Your task to perform on an android device: Open eBay Image 0: 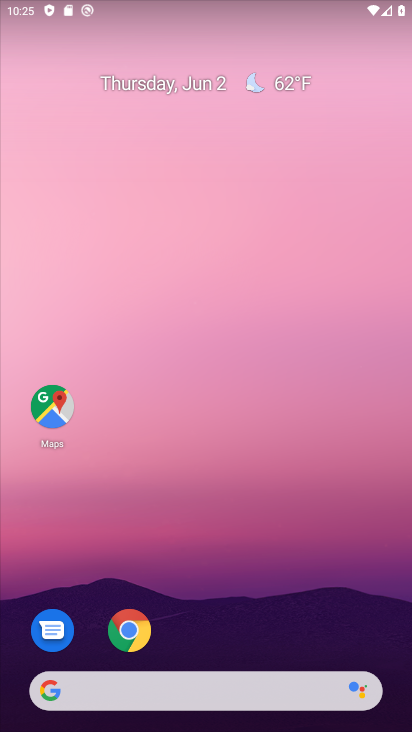
Step 0: press home button
Your task to perform on an android device: Open eBay Image 1: 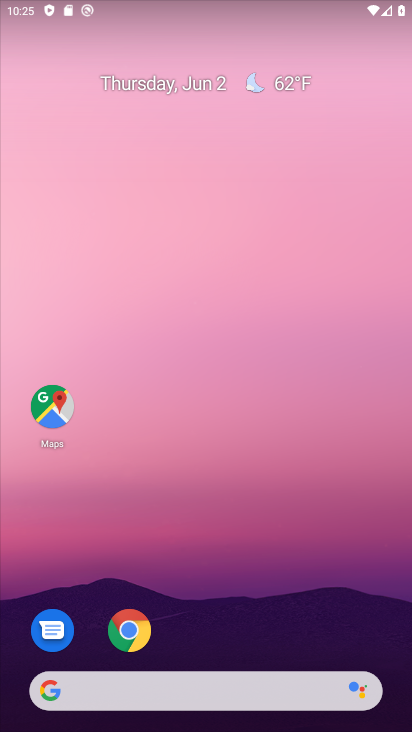
Step 1: click (132, 632)
Your task to perform on an android device: Open eBay Image 2: 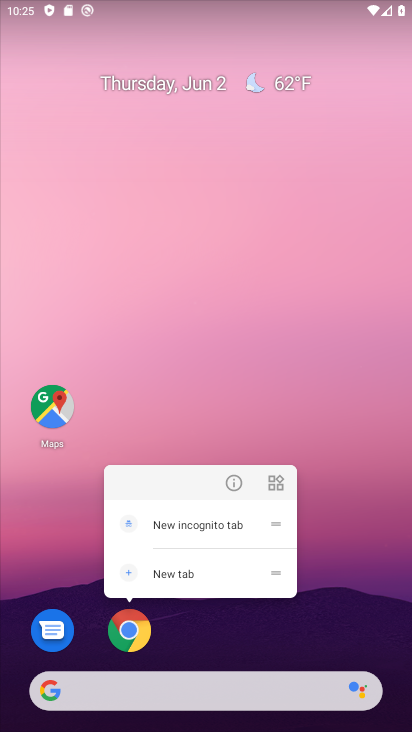
Step 2: click (134, 635)
Your task to perform on an android device: Open eBay Image 3: 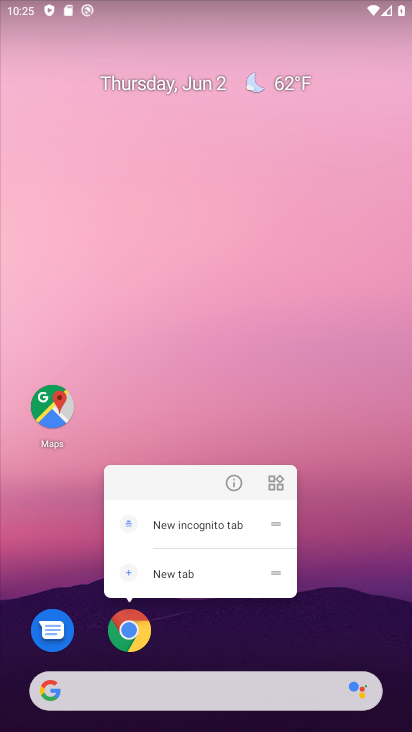
Step 3: click (134, 635)
Your task to perform on an android device: Open eBay Image 4: 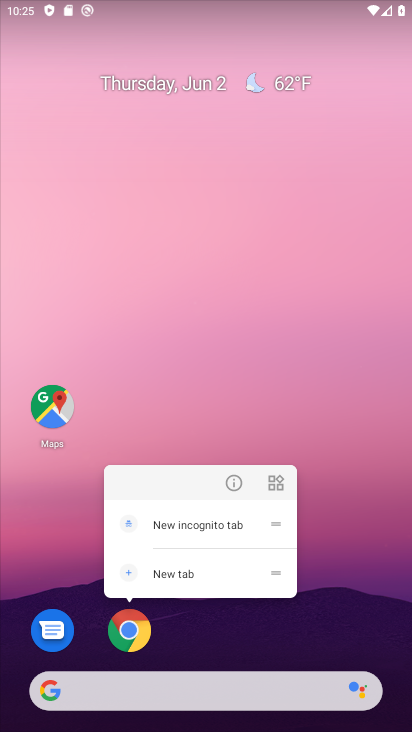
Step 4: click (132, 637)
Your task to perform on an android device: Open eBay Image 5: 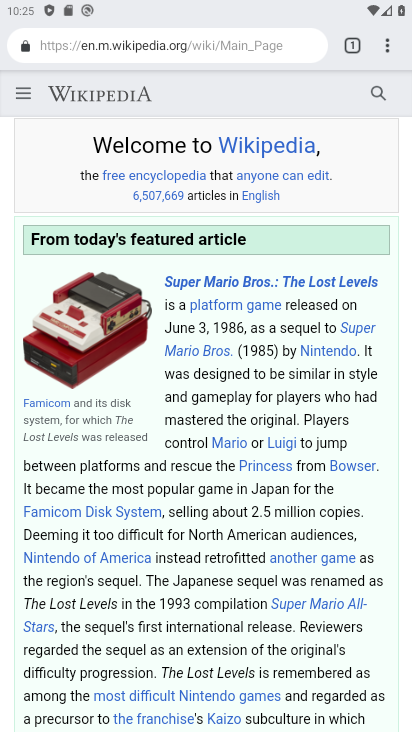
Step 5: drag from (387, 47) to (237, 86)
Your task to perform on an android device: Open eBay Image 6: 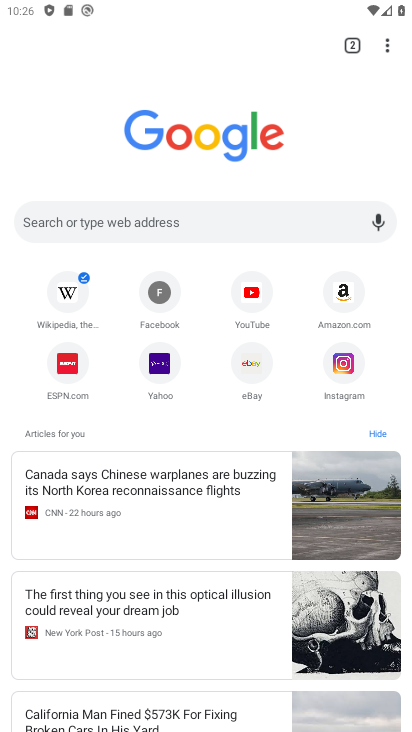
Step 6: click (255, 368)
Your task to perform on an android device: Open eBay Image 7: 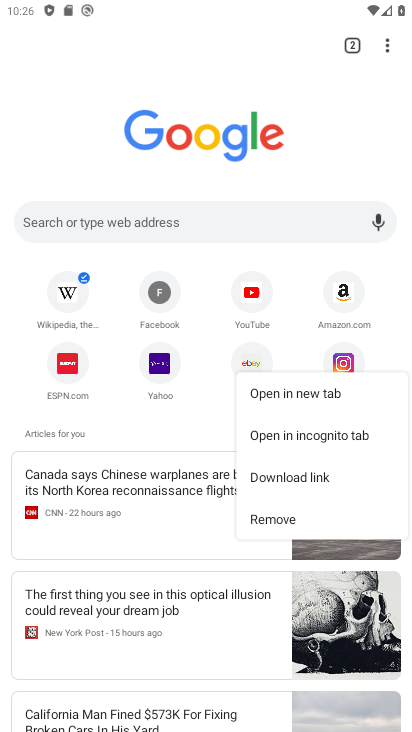
Step 7: click (248, 372)
Your task to perform on an android device: Open eBay Image 8: 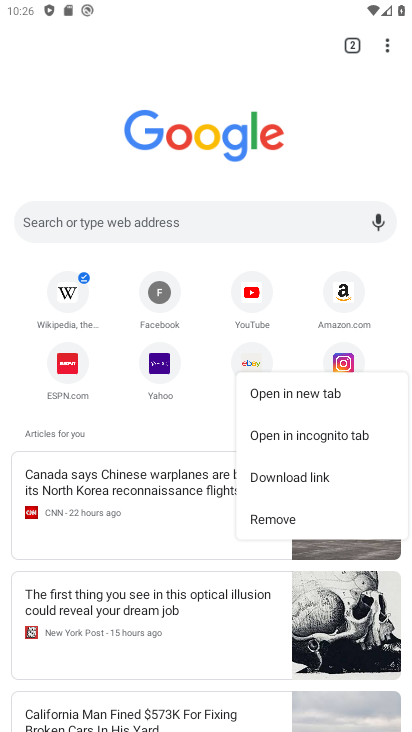
Step 8: click (256, 354)
Your task to perform on an android device: Open eBay Image 9: 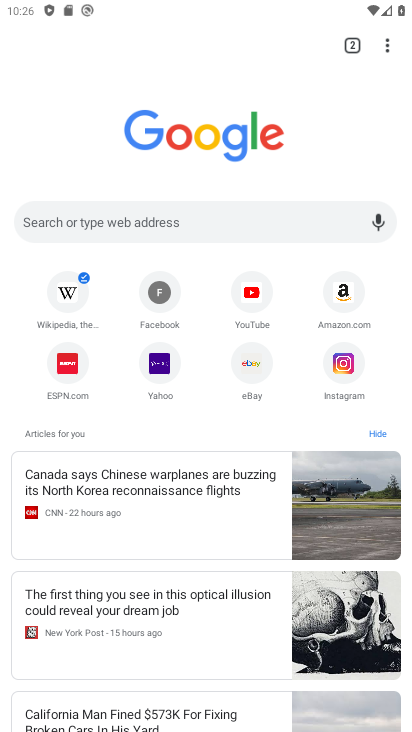
Step 9: click (249, 365)
Your task to perform on an android device: Open eBay Image 10: 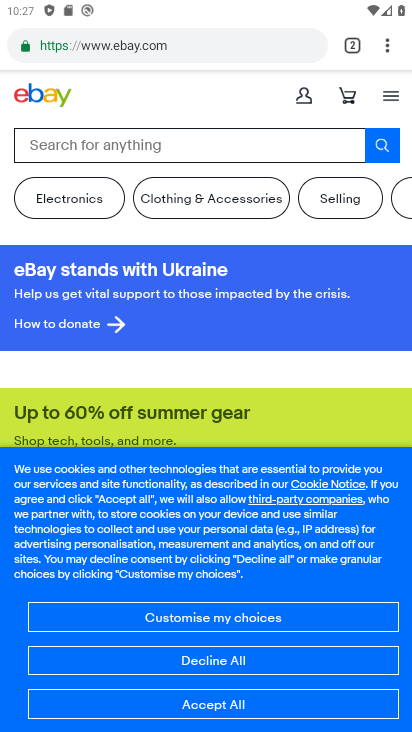
Step 10: click (242, 708)
Your task to perform on an android device: Open eBay Image 11: 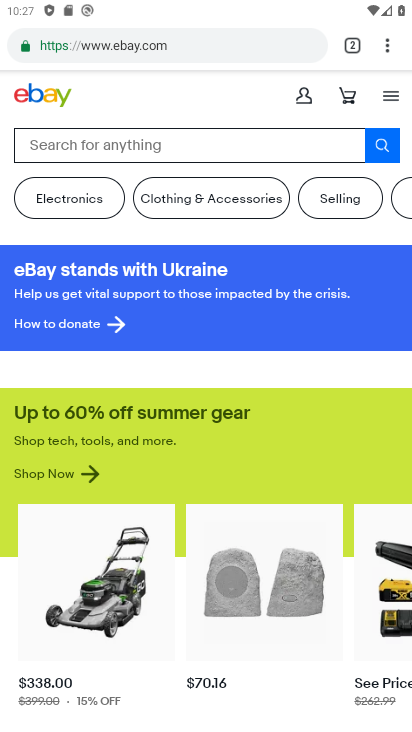
Step 11: task complete